Your task to perform on an android device: turn on sleep mode Image 0: 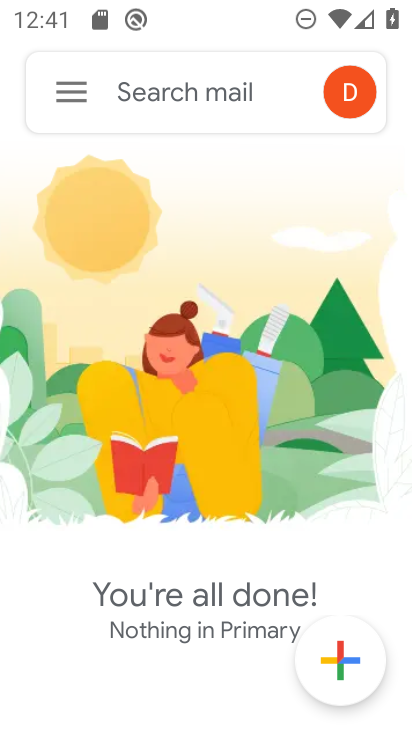
Step 0: press home button
Your task to perform on an android device: turn on sleep mode Image 1: 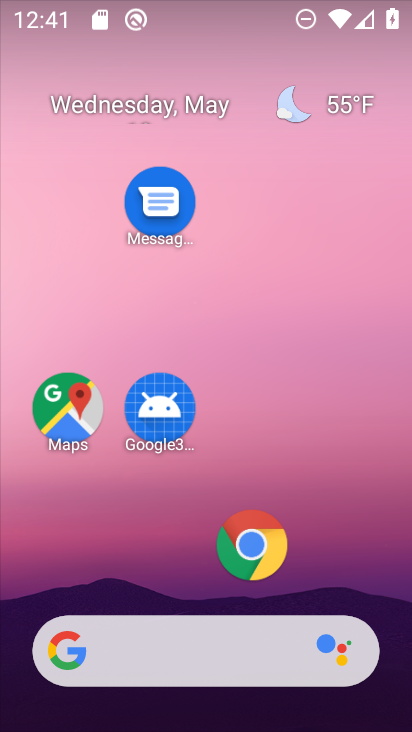
Step 1: drag from (149, 565) to (284, 5)
Your task to perform on an android device: turn on sleep mode Image 2: 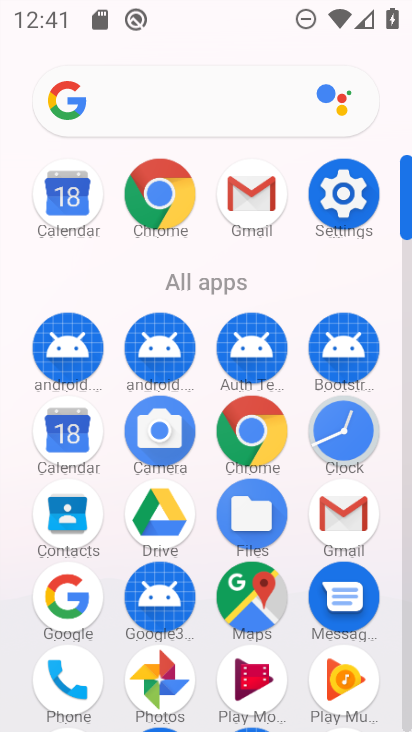
Step 2: click (362, 205)
Your task to perform on an android device: turn on sleep mode Image 3: 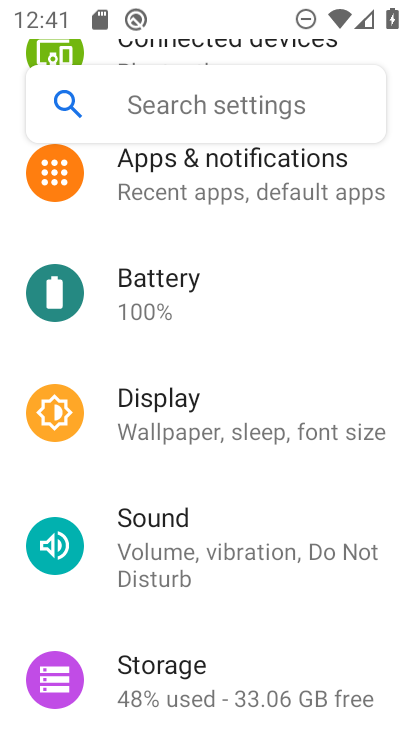
Step 3: click (183, 110)
Your task to perform on an android device: turn on sleep mode Image 4: 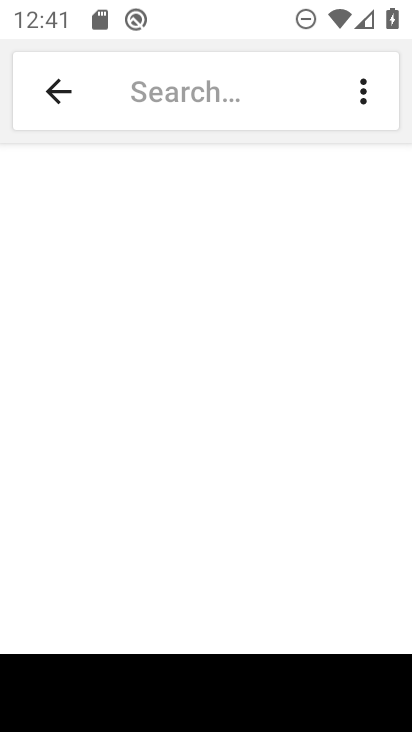
Step 4: type "sleep mode"
Your task to perform on an android device: turn on sleep mode Image 5: 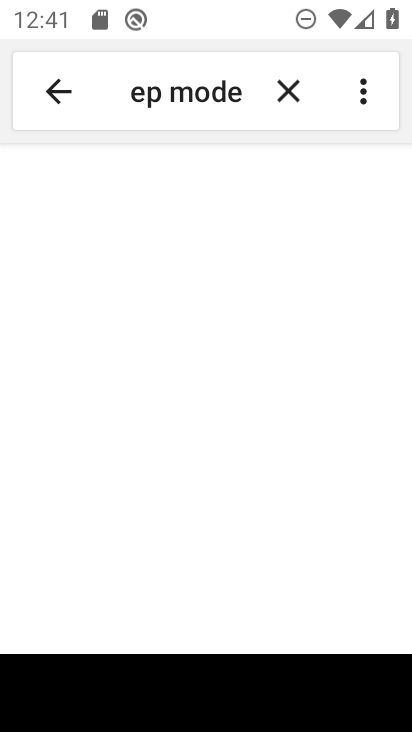
Step 5: task complete